Your task to perform on an android device: Is it going to rain this weekend? Image 0: 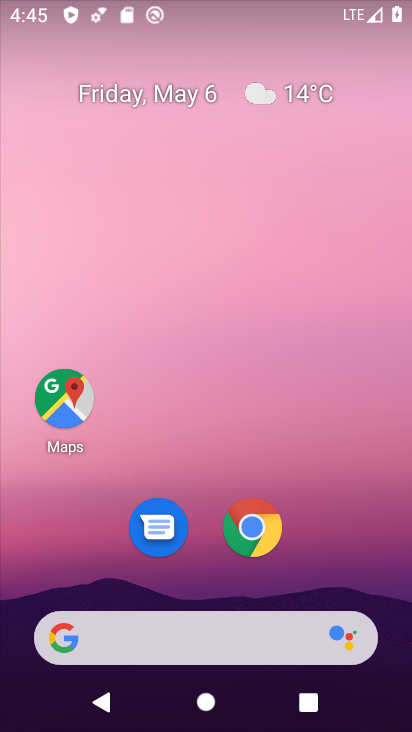
Step 0: click (261, 87)
Your task to perform on an android device: Is it going to rain this weekend? Image 1: 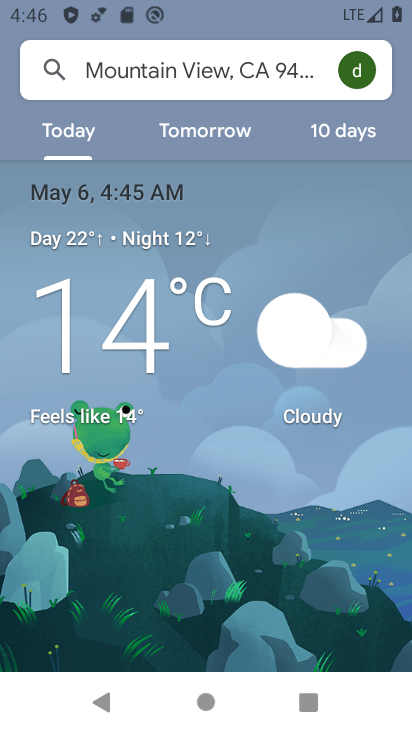
Step 1: click (335, 129)
Your task to perform on an android device: Is it going to rain this weekend? Image 2: 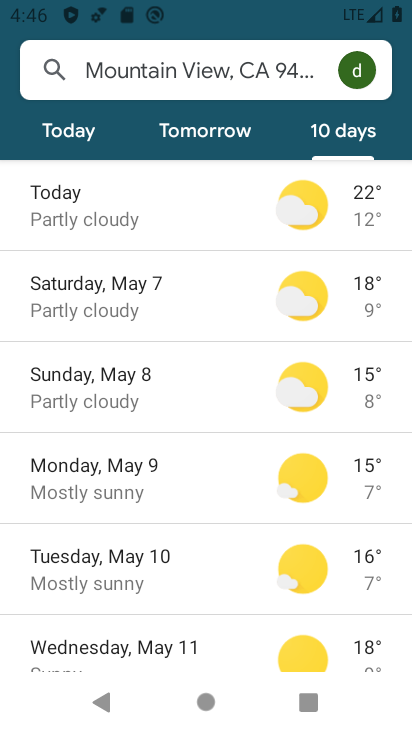
Step 2: click (108, 295)
Your task to perform on an android device: Is it going to rain this weekend? Image 3: 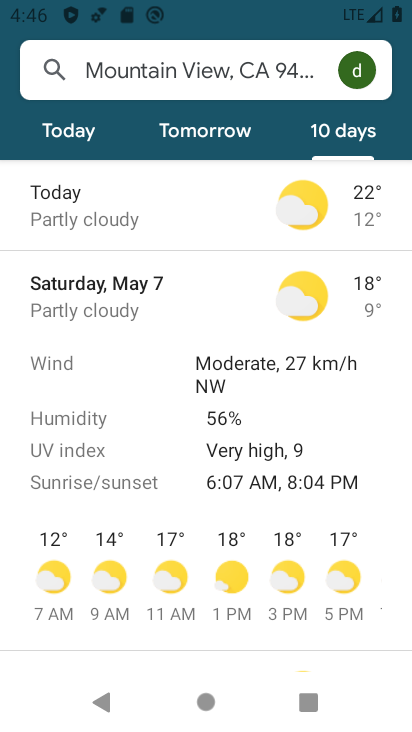
Step 3: task complete